Your task to perform on an android device: What's the weather today? Image 0: 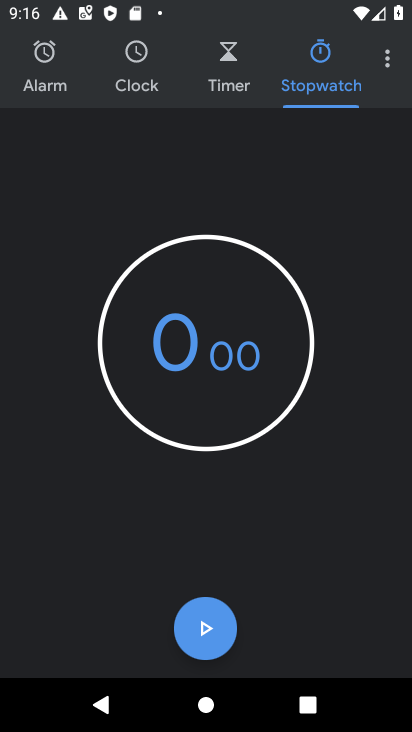
Step 0: press home button
Your task to perform on an android device: What's the weather today? Image 1: 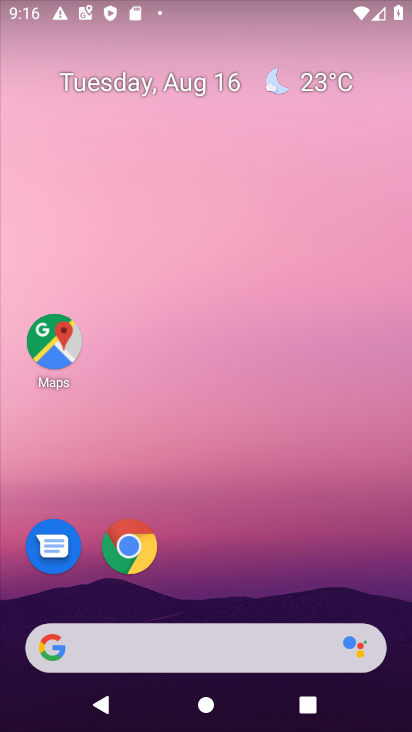
Step 1: click (323, 85)
Your task to perform on an android device: What's the weather today? Image 2: 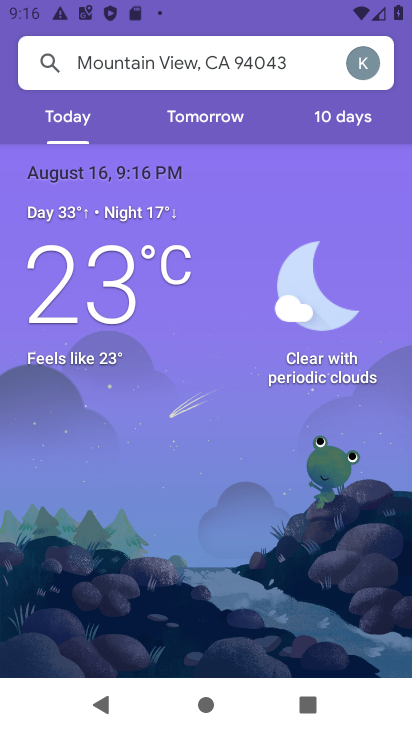
Step 2: task complete